Your task to perform on an android device: Go to Android settings Image 0: 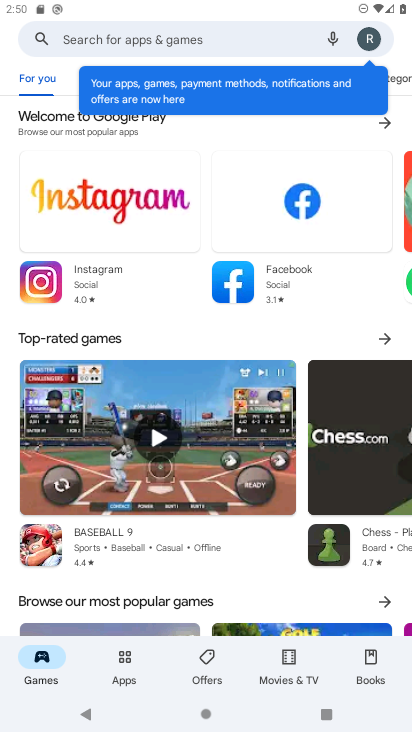
Step 0: click (198, 710)
Your task to perform on an android device: Go to Android settings Image 1: 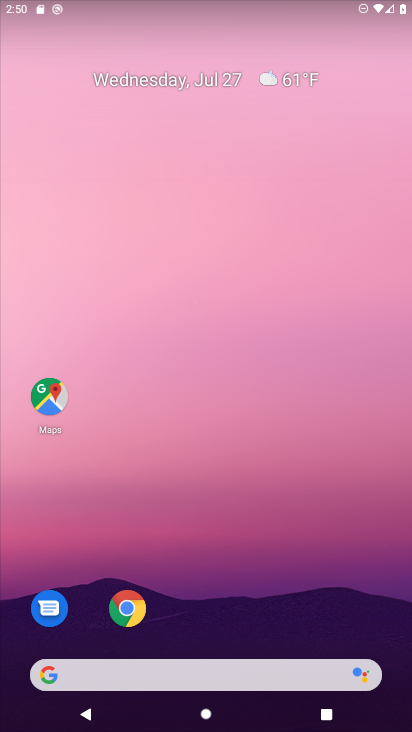
Step 1: drag from (170, 398) to (188, 106)
Your task to perform on an android device: Go to Android settings Image 2: 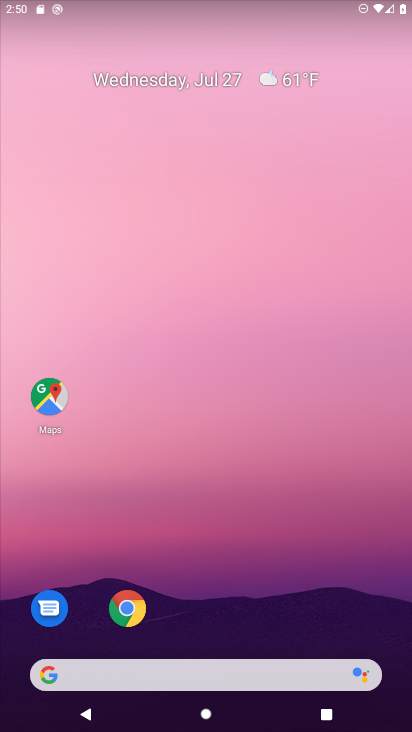
Step 2: drag from (65, 54) to (89, 0)
Your task to perform on an android device: Go to Android settings Image 3: 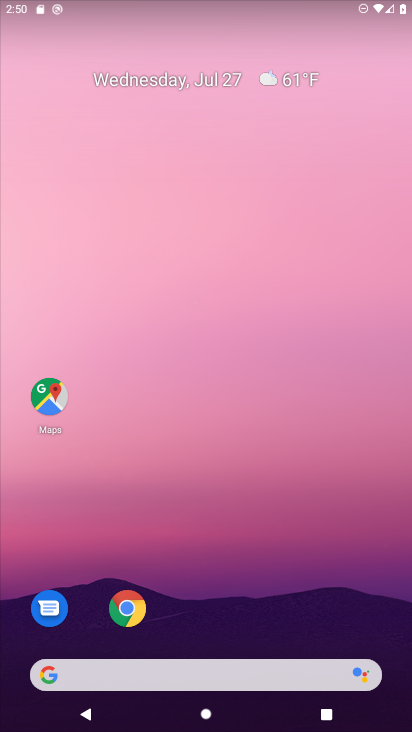
Step 3: drag from (230, 594) to (223, 256)
Your task to perform on an android device: Go to Android settings Image 4: 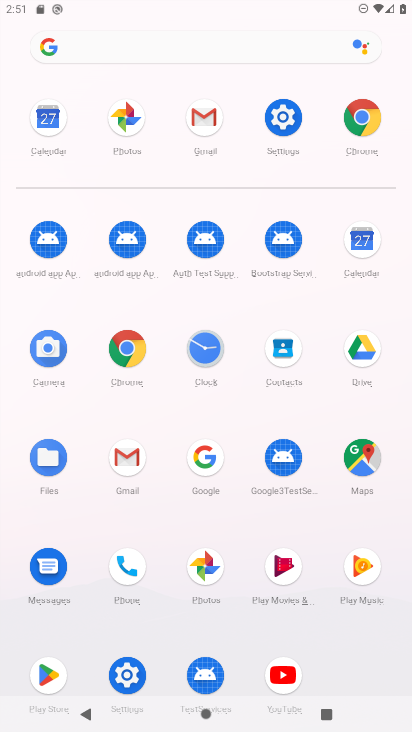
Step 4: click (193, 393)
Your task to perform on an android device: Go to Android settings Image 5: 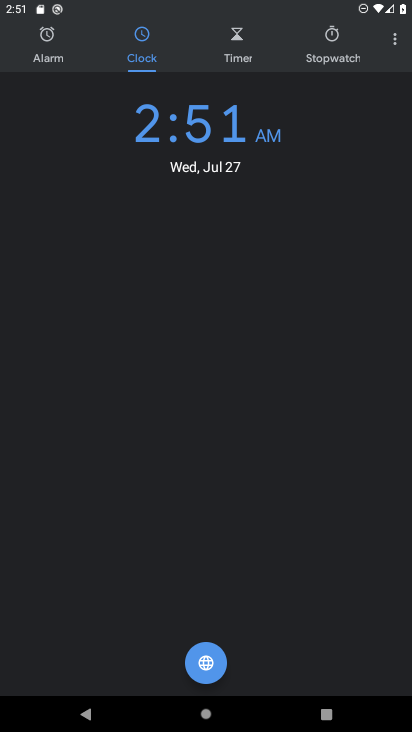
Step 5: click (209, 711)
Your task to perform on an android device: Go to Android settings Image 6: 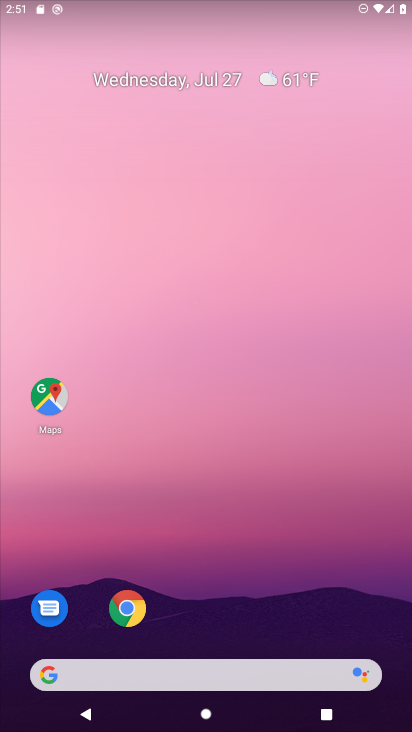
Step 6: drag from (196, 636) to (190, 148)
Your task to perform on an android device: Go to Android settings Image 7: 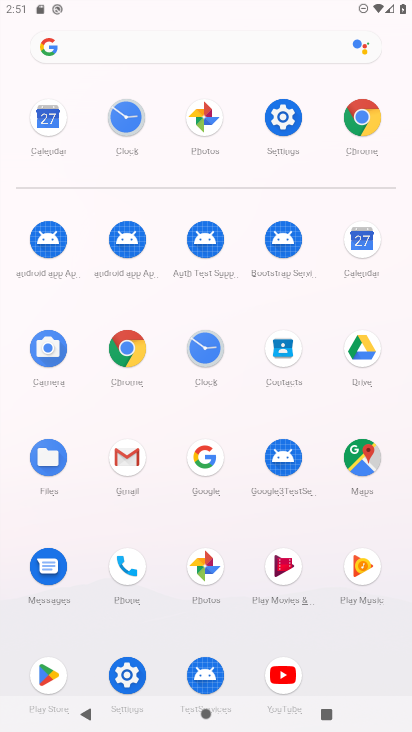
Step 7: click (279, 113)
Your task to perform on an android device: Go to Android settings Image 8: 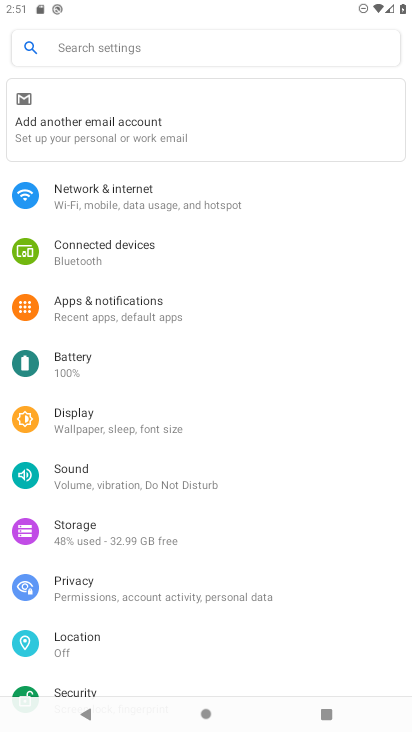
Step 8: task complete